Your task to perform on an android device: Open the calendar and show me this week's events? Image 0: 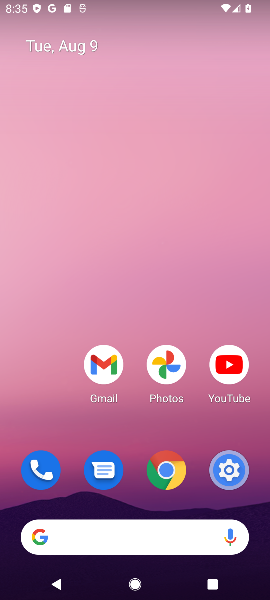
Step 0: drag from (105, 493) to (155, 247)
Your task to perform on an android device: Open the calendar and show me this week's events? Image 1: 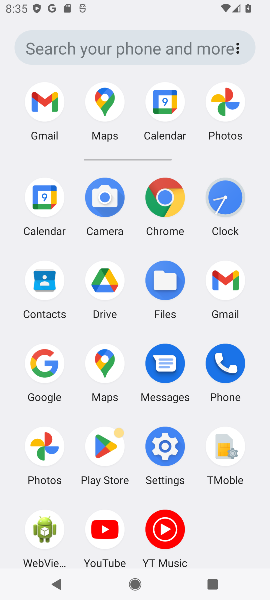
Step 1: click (42, 202)
Your task to perform on an android device: Open the calendar and show me this week's events? Image 2: 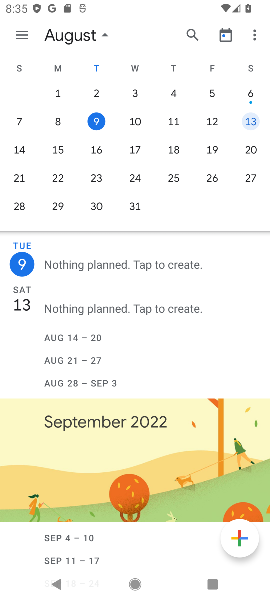
Step 2: drag from (262, 150) to (17, 136)
Your task to perform on an android device: Open the calendar and show me this week's events? Image 3: 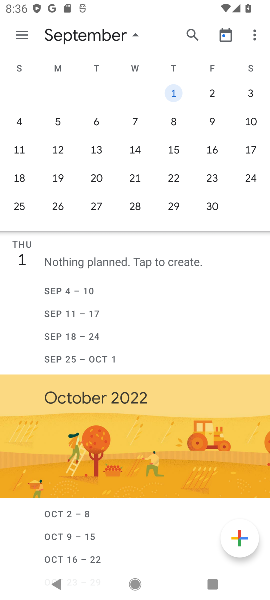
Step 3: drag from (40, 135) to (267, 145)
Your task to perform on an android device: Open the calendar and show me this week's events? Image 4: 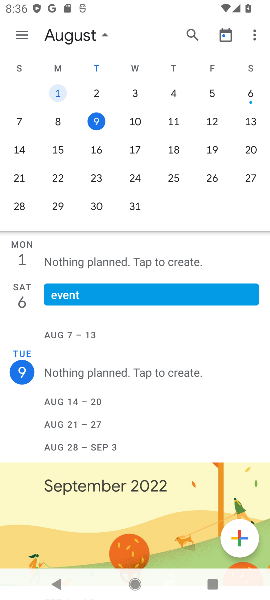
Step 4: click (136, 120)
Your task to perform on an android device: Open the calendar and show me this week's events? Image 5: 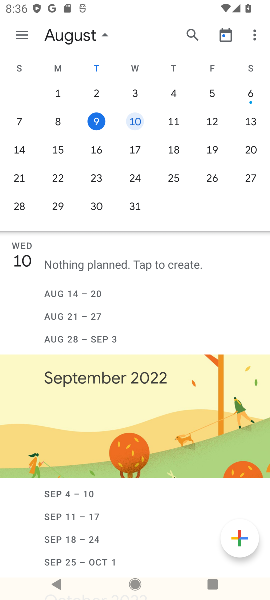
Step 5: task complete